Your task to perform on an android device: Open eBay Image 0: 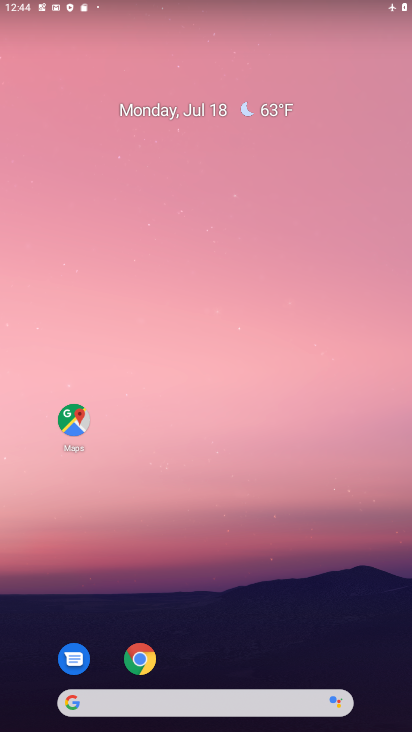
Step 0: click (136, 666)
Your task to perform on an android device: Open eBay Image 1: 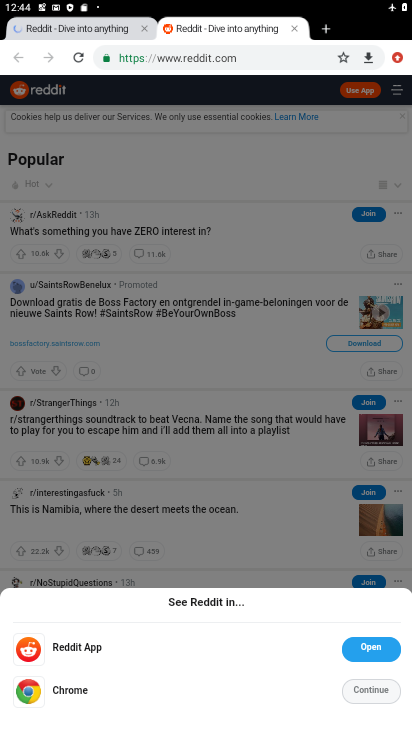
Step 1: click (293, 28)
Your task to perform on an android device: Open eBay Image 2: 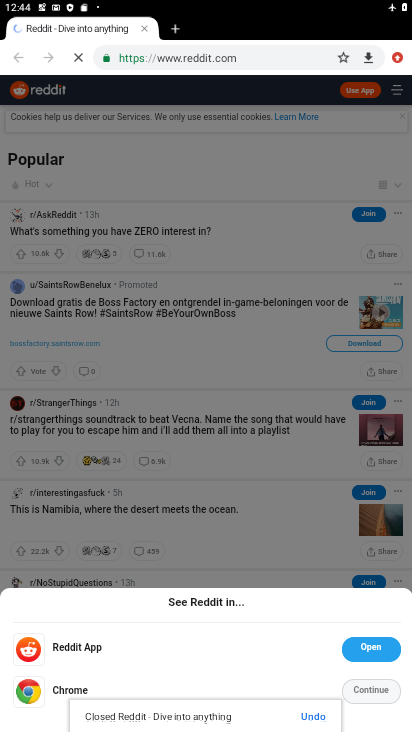
Step 2: click (147, 26)
Your task to perform on an android device: Open eBay Image 3: 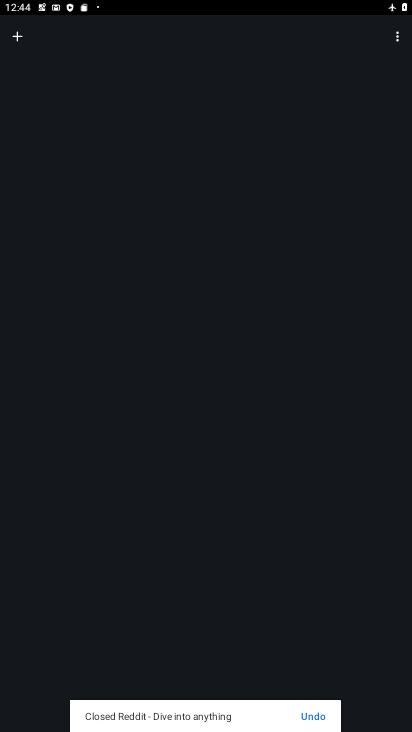
Step 3: click (15, 34)
Your task to perform on an android device: Open eBay Image 4: 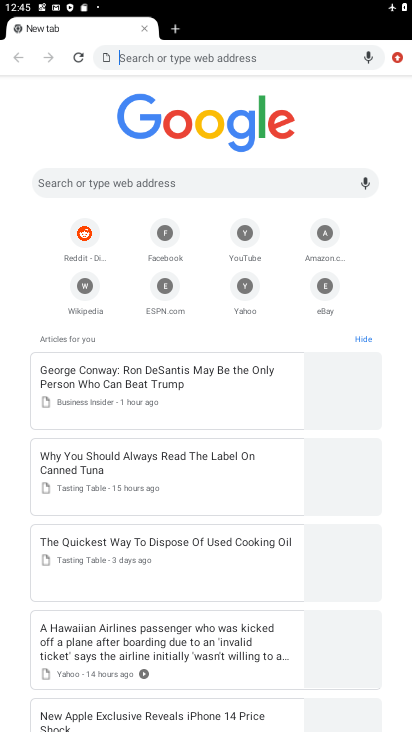
Step 4: click (323, 287)
Your task to perform on an android device: Open eBay Image 5: 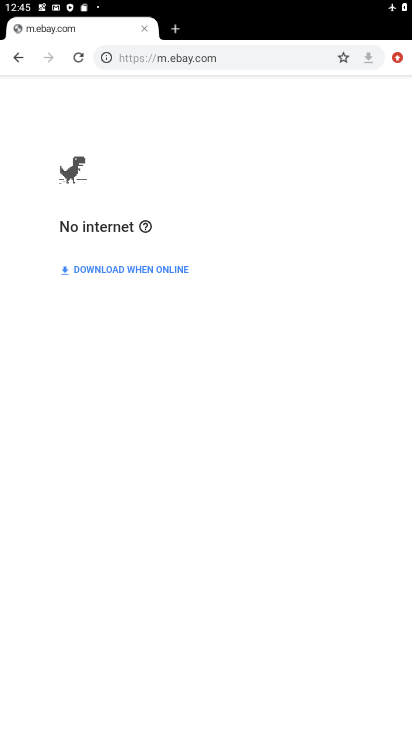
Step 5: task complete